Your task to perform on an android device: clear all cookies in the chrome app Image 0: 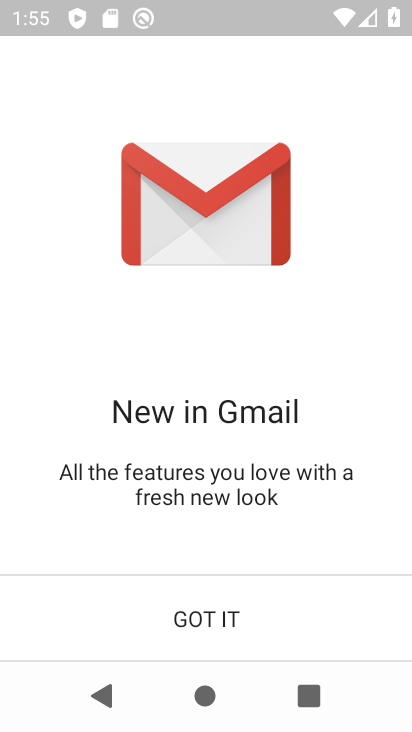
Step 0: press home button
Your task to perform on an android device: clear all cookies in the chrome app Image 1: 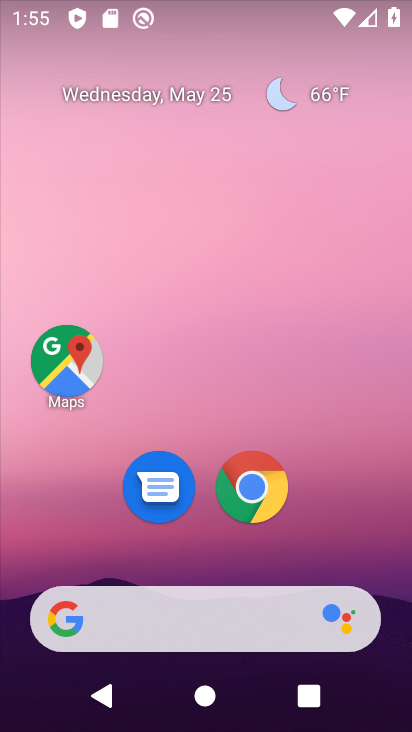
Step 1: drag from (202, 565) to (171, 148)
Your task to perform on an android device: clear all cookies in the chrome app Image 2: 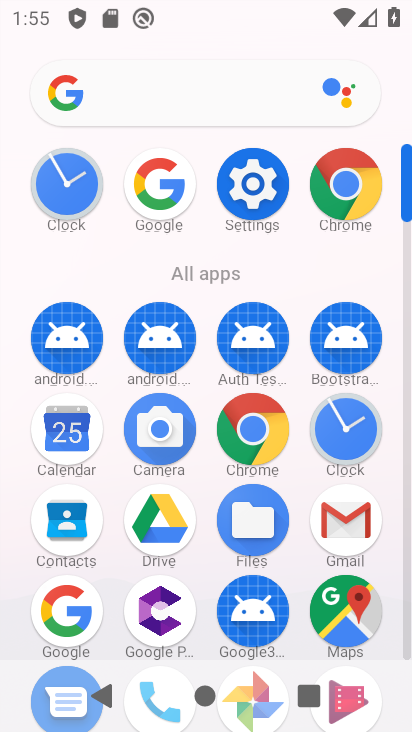
Step 2: click (359, 207)
Your task to perform on an android device: clear all cookies in the chrome app Image 3: 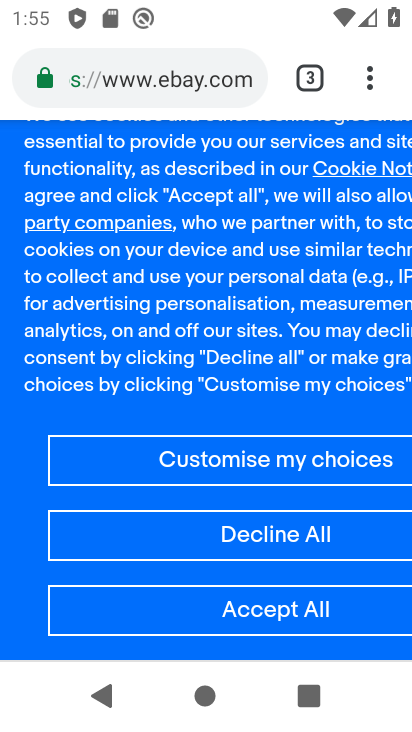
Step 3: click (372, 77)
Your task to perform on an android device: clear all cookies in the chrome app Image 4: 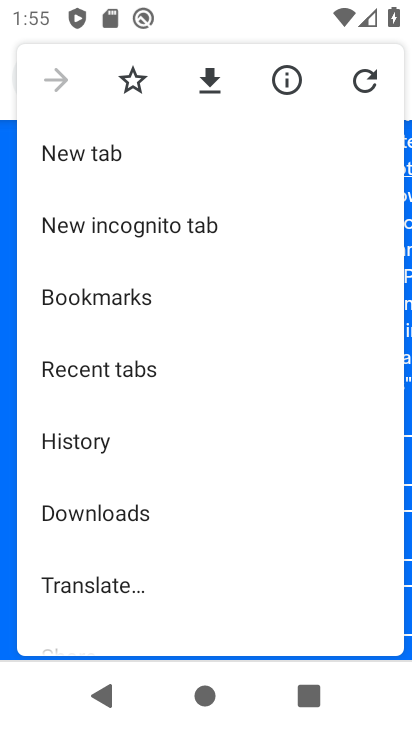
Step 4: drag from (102, 549) to (123, 370)
Your task to perform on an android device: clear all cookies in the chrome app Image 5: 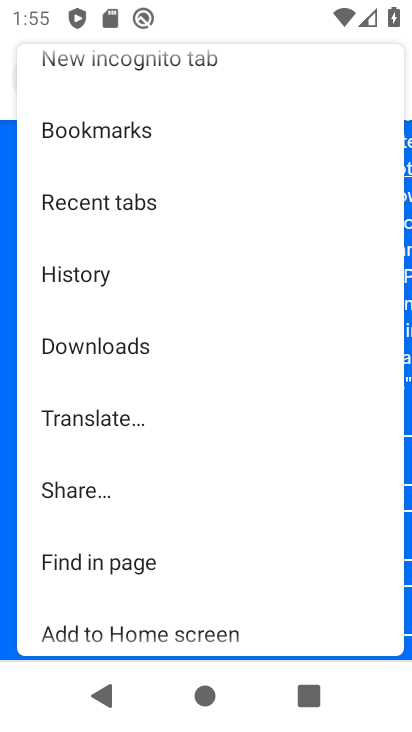
Step 5: drag from (114, 589) to (170, 365)
Your task to perform on an android device: clear all cookies in the chrome app Image 6: 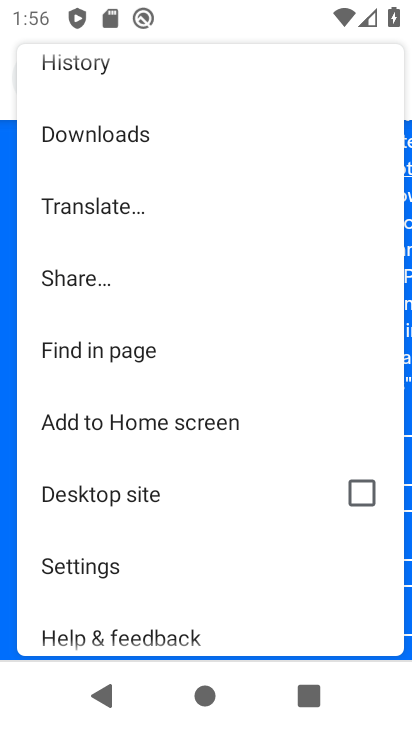
Step 6: click (123, 574)
Your task to perform on an android device: clear all cookies in the chrome app Image 7: 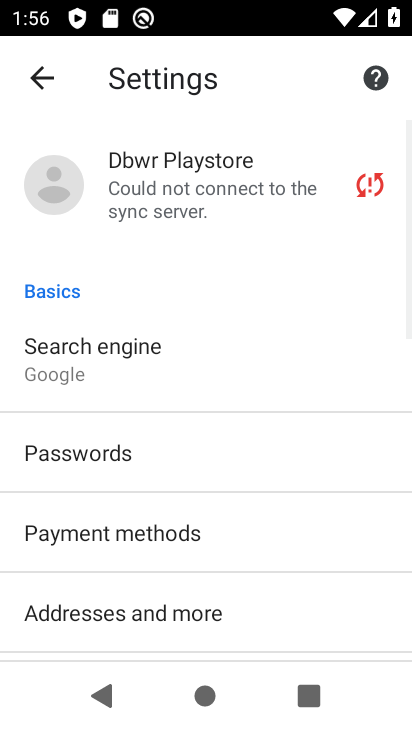
Step 7: press back button
Your task to perform on an android device: clear all cookies in the chrome app Image 8: 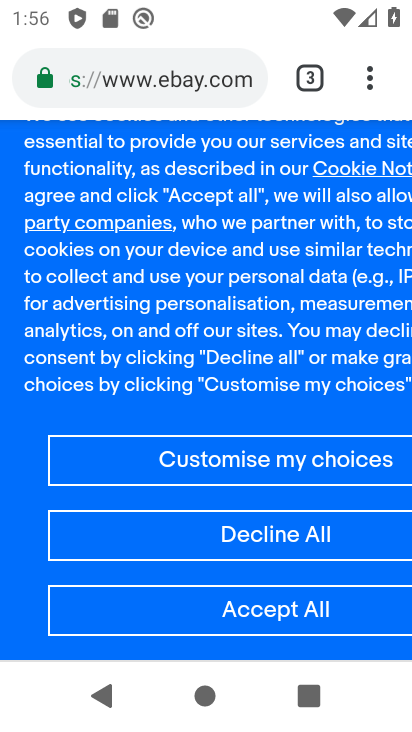
Step 8: click (371, 71)
Your task to perform on an android device: clear all cookies in the chrome app Image 9: 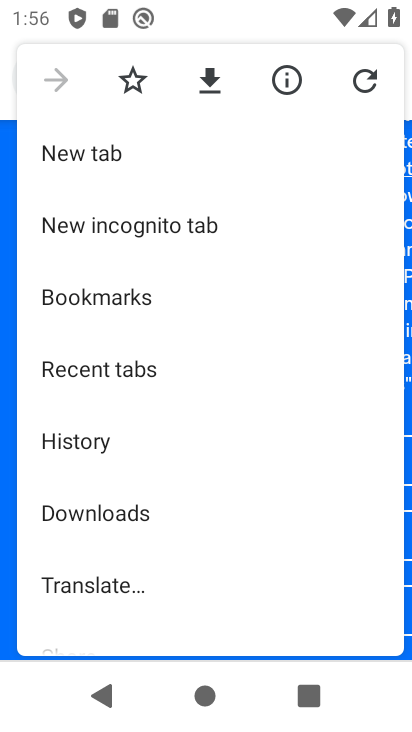
Step 9: drag from (172, 554) to (219, 326)
Your task to perform on an android device: clear all cookies in the chrome app Image 10: 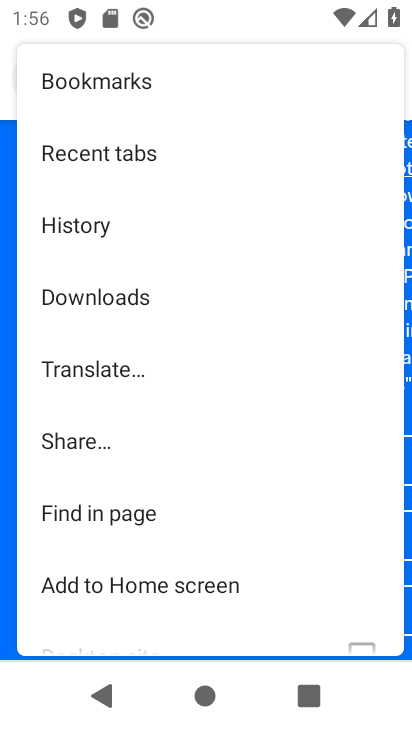
Step 10: drag from (247, 612) to (271, 305)
Your task to perform on an android device: clear all cookies in the chrome app Image 11: 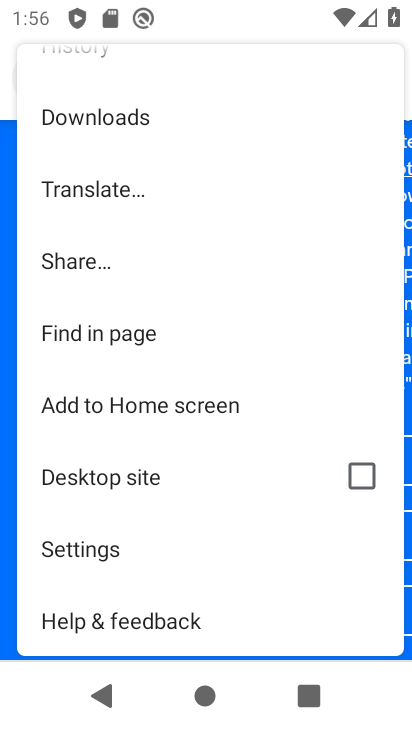
Step 11: drag from (179, 142) to (218, 466)
Your task to perform on an android device: clear all cookies in the chrome app Image 12: 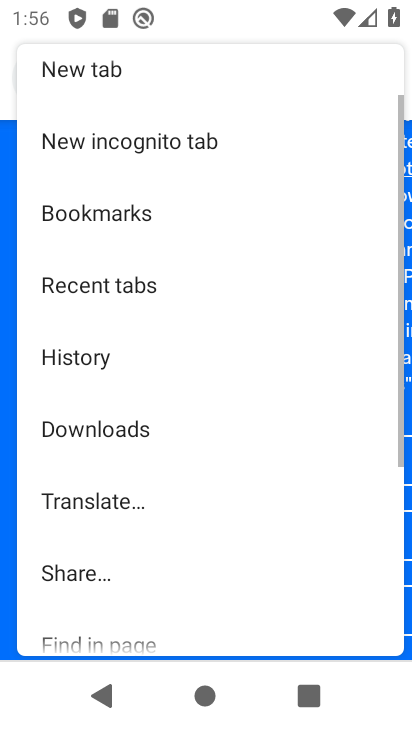
Step 12: click (69, 362)
Your task to perform on an android device: clear all cookies in the chrome app Image 13: 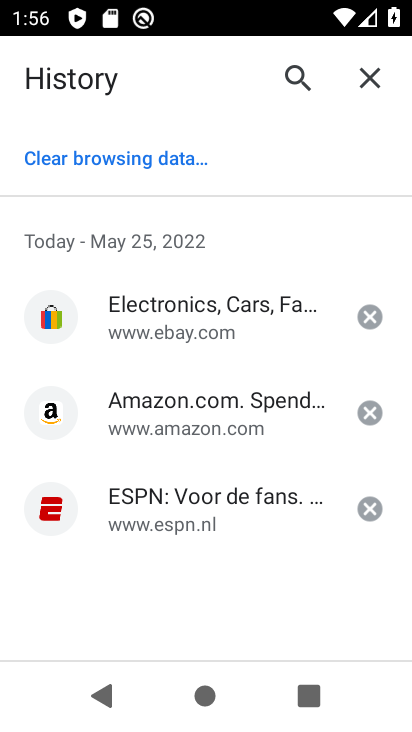
Step 13: click (128, 167)
Your task to perform on an android device: clear all cookies in the chrome app Image 14: 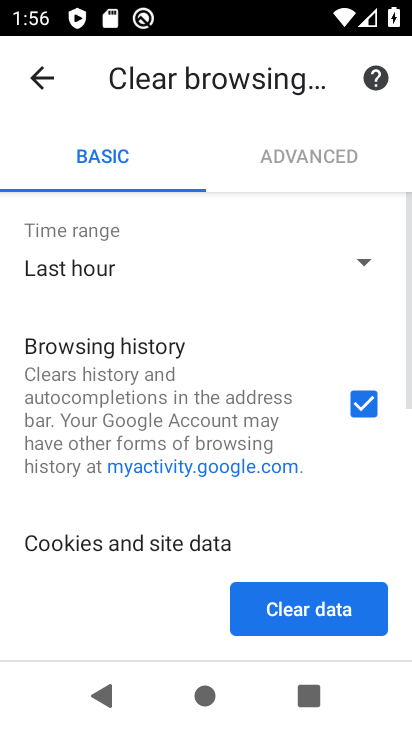
Step 14: drag from (289, 498) to (331, 321)
Your task to perform on an android device: clear all cookies in the chrome app Image 15: 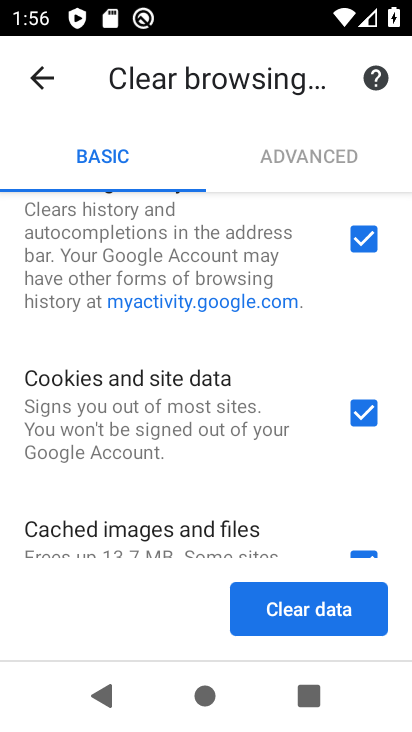
Step 15: click (363, 245)
Your task to perform on an android device: clear all cookies in the chrome app Image 16: 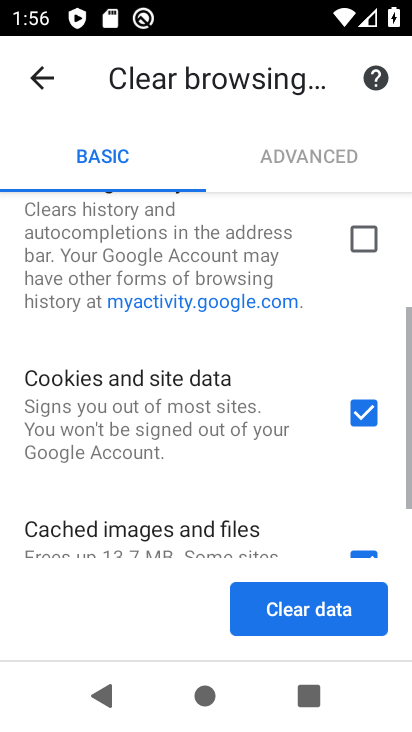
Step 16: click (362, 554)
Your task to perform on an android device: clear all cookies in the chrome app Image 17: 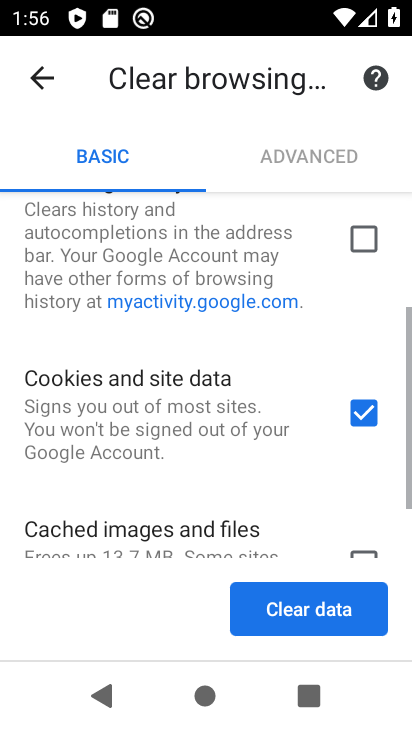
Step 17: click (312, 615)
Your task to perform on an android device: clear all cookies in the chrome app Image 18: 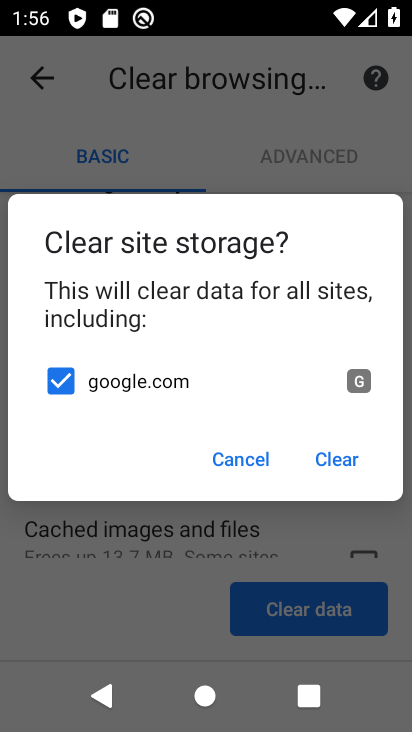
Step 18: click (320, 470)
Your task to perform on an android device: clear all cookies in the chrome app Image 19: 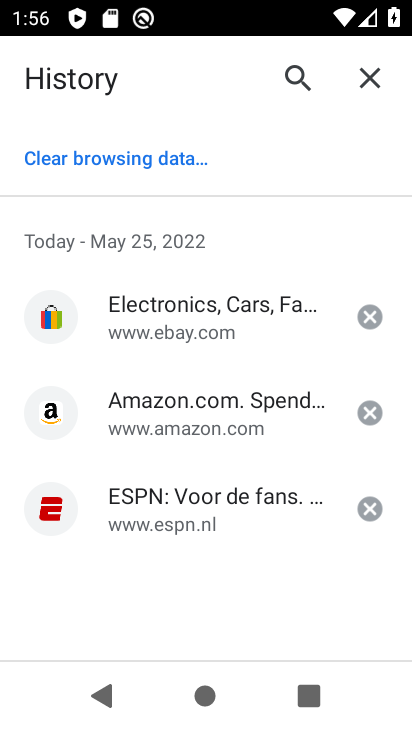
Step 19: task complete